Your task to perform on an android device: Go to CNN.com Image 0: 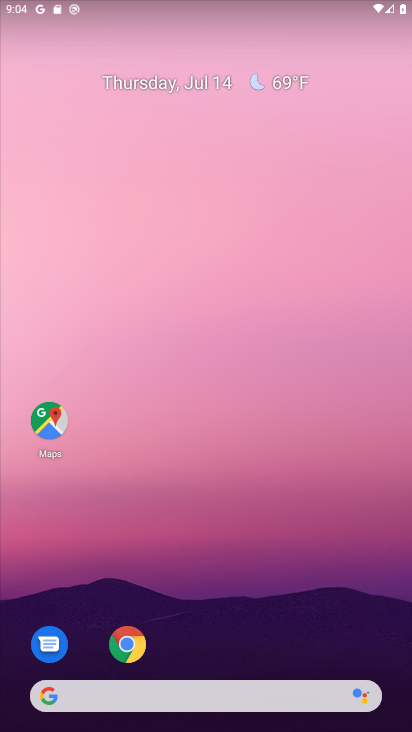
Step 0: click (127, 708)
Your task to perform on an android device: Go to CNN.com Image 1: 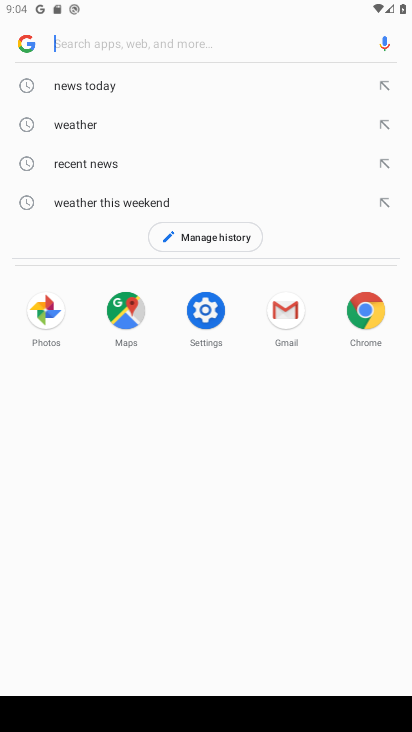
Step 1: type "cnn.com"
Your task to perform on an android device: Go to CNN.com Image 2: 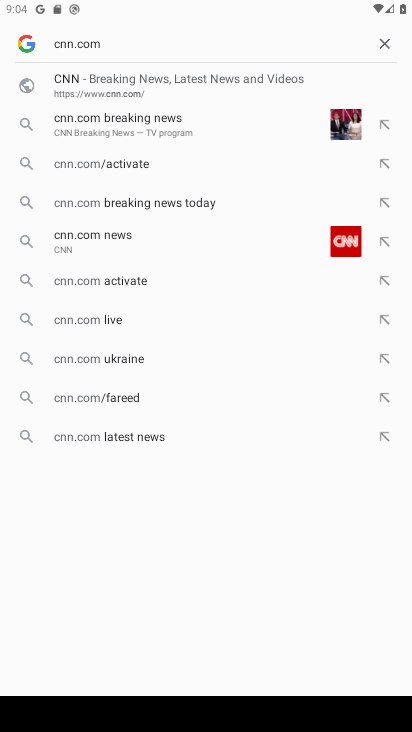
Step 2: click (202, 100)
Your task to perform on an android device: Go to CNN.com Image 3: 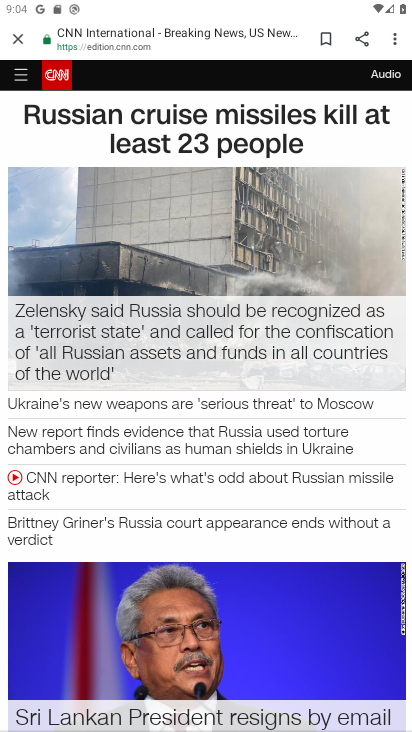
Step 3: task complete